Your task to perform on an android device: turn notification dots off Image 0: 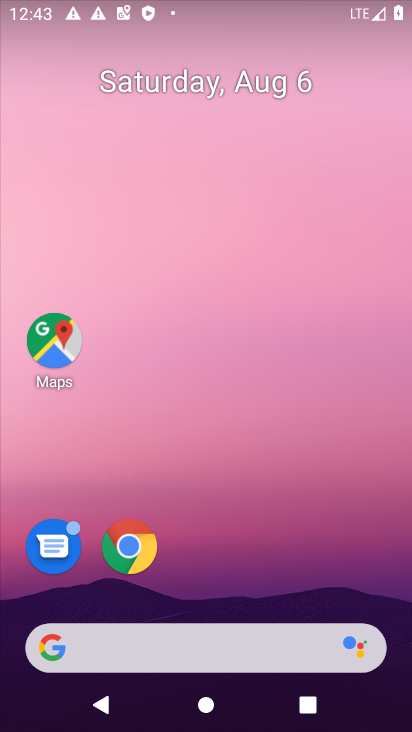
Step 0: drag from (376, 597) to (341, 69)
Your task to perform on an android device: turn notification dots off Image 1: 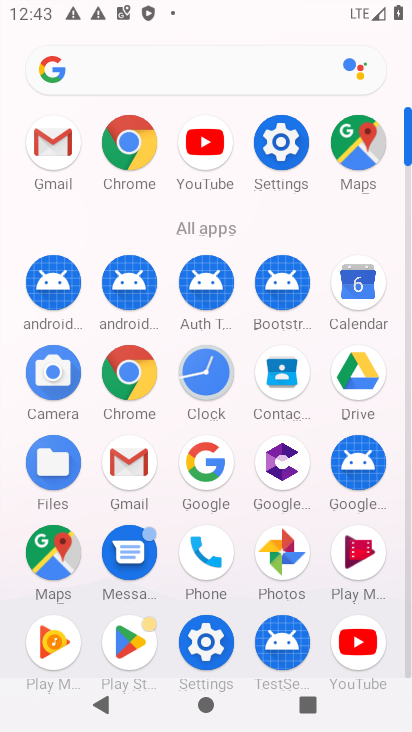
Step 1: click (204, 644)
Your task to perform on an android device: turn notification dots off Image 2: 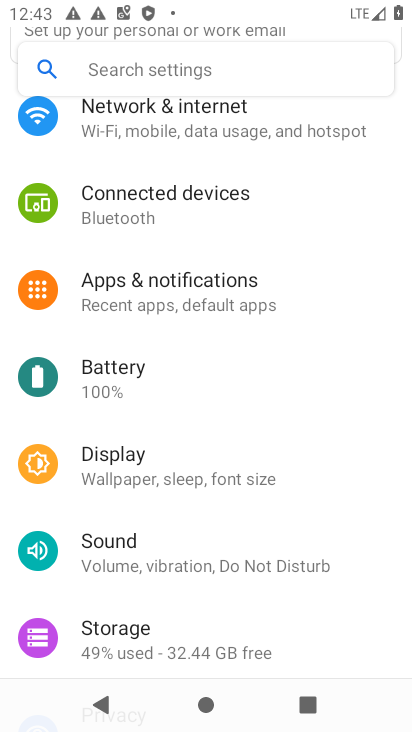
Step 2: click (154, 281)
Your task to perform on an android device: turn notification dots off Image 3: 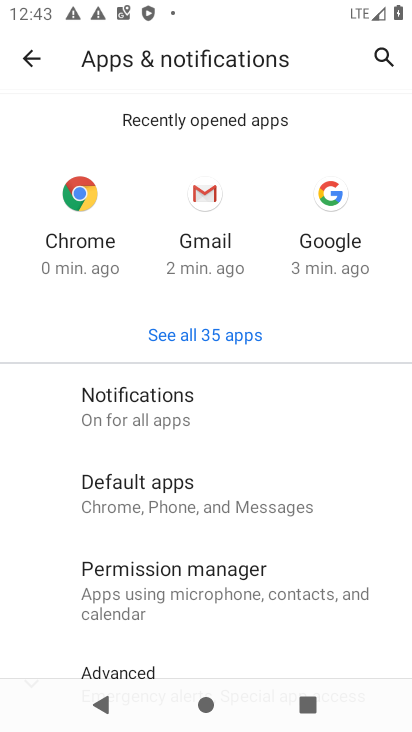
Step 3: click (146, 411)
Your task to perform on an android device: turn notification dots off Image 4: 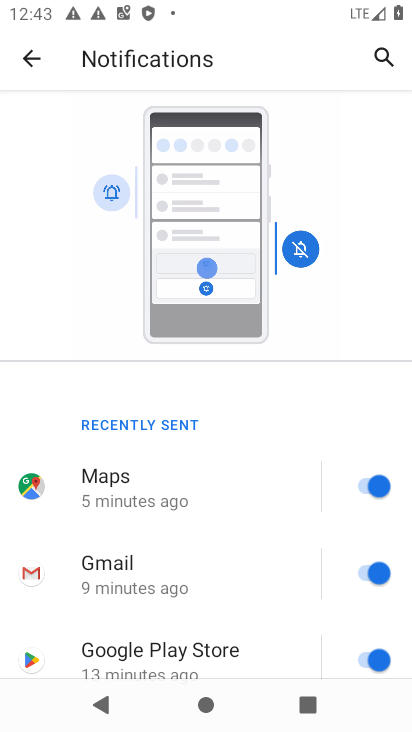
Step 4: drag from (329, 640) to (321, 223)
Your task to perform on an android device: turn notification dots off Image 5: 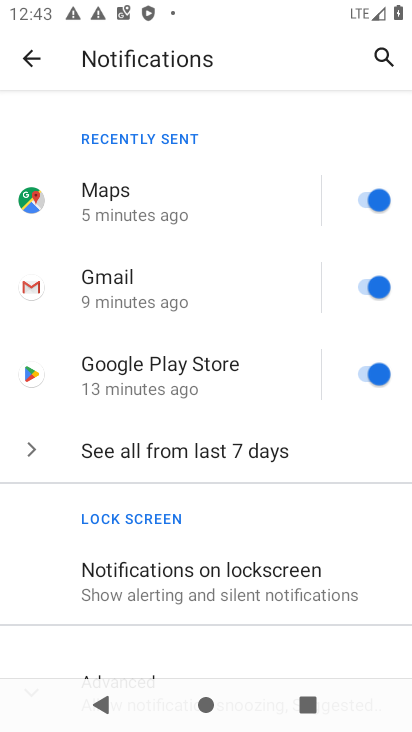
Step 5: drag from (294, 583) to (303, 159)
Your task to perform on an android device: turn notification dots off Image 6: 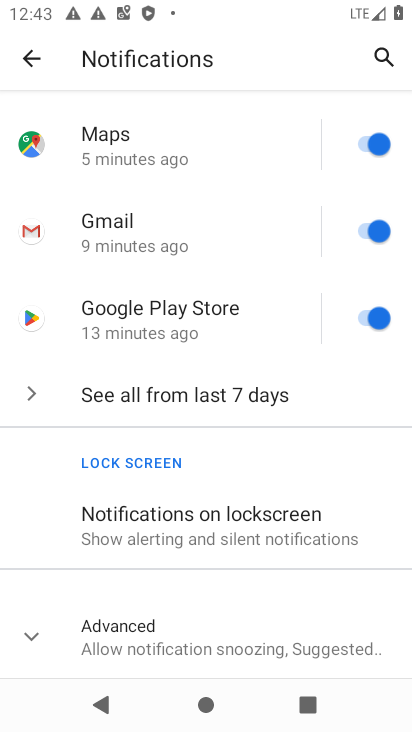
Step 6: click (28, 642)
Your task to perform on an android device: turn notification dots off Image 7: 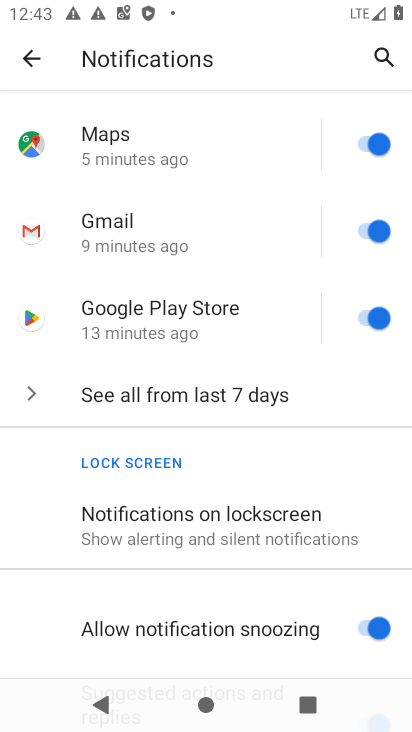
Step 7: drag from (332, 570) to (308, 96)
Your task to perform on an android device: turn notification dots off Image 8: 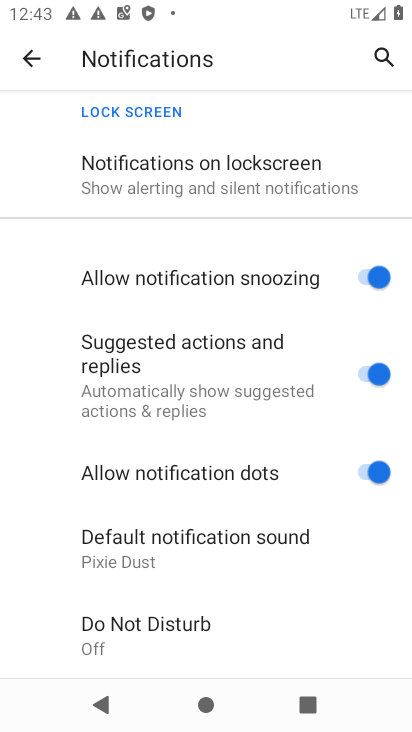
Step 8: click (361, 470)
Your task to perform on an android device: turn notification dots off Image 9: 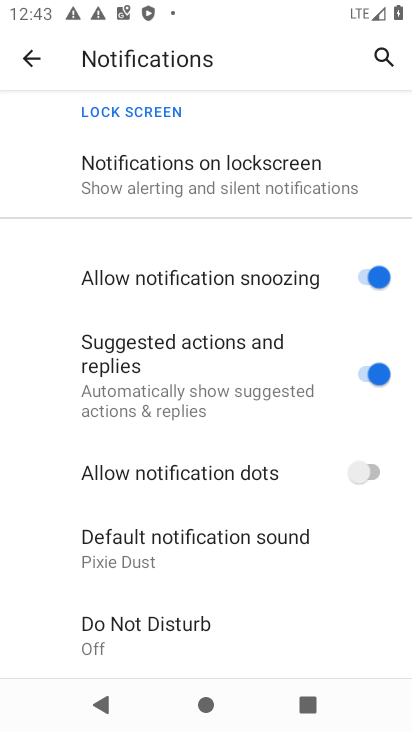
Step 9: task complete